Your task to perform on an android device: What's the weather? Image 0: 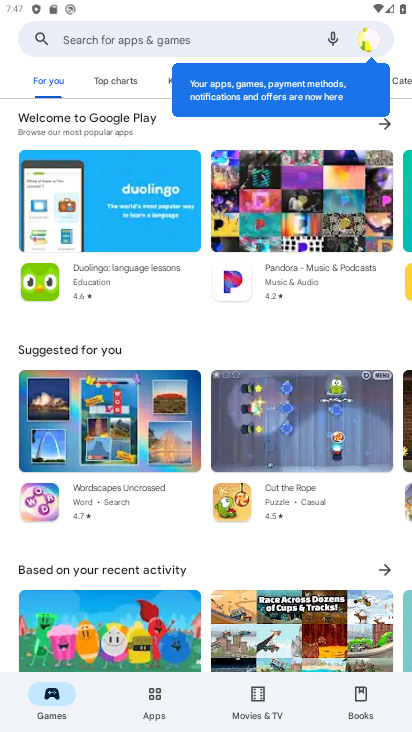
Step 0: press home button
Your task to perform on an android device: What's the weather? Image 1: 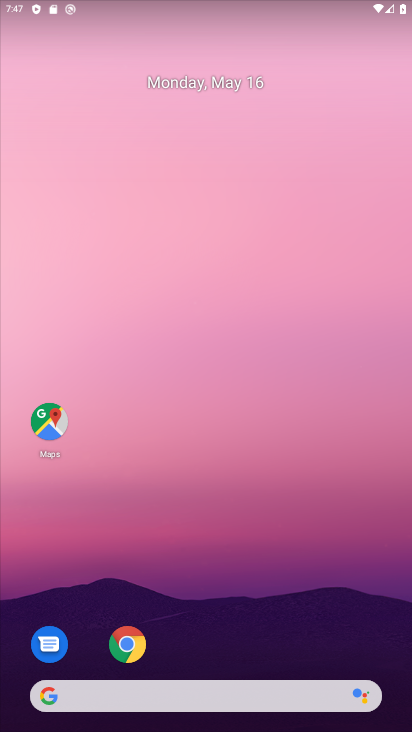
Step 1: click (89, 695)
Your task to perform on an android device: What's the weather? Image 2: 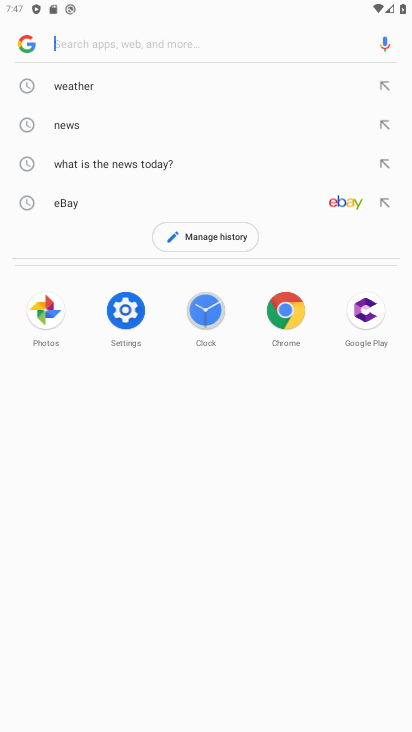
Step 2: type "What's the weather?"
Your task to perform on an android device: What's the weather? Image 3: 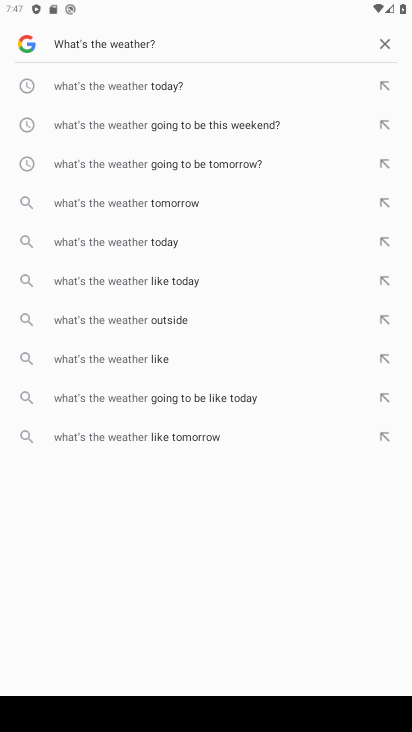
Step 3: click (186, 84)
Your task to perform on an android device: What's the weather? Image 4: 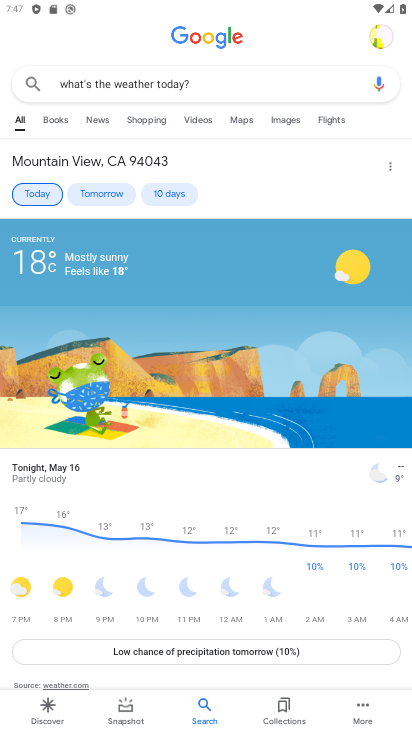
Step 4: task complete